Your task to perform on an android device: toggle wifi Image 0: 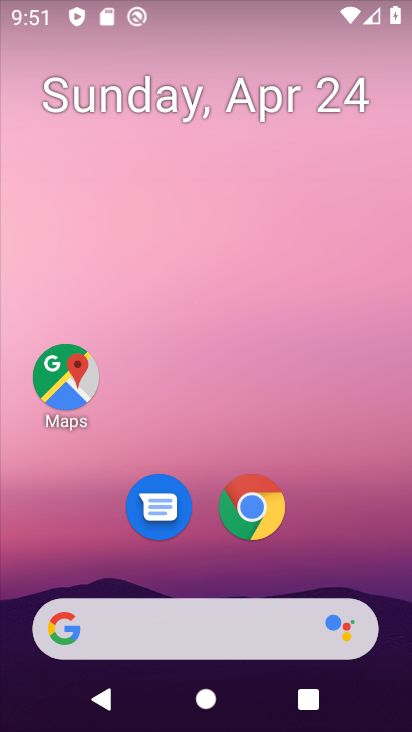
Step 0: drag from (166, 572) to (211, 68)
Your task to perform on an android device: toggle wifi Image 1: 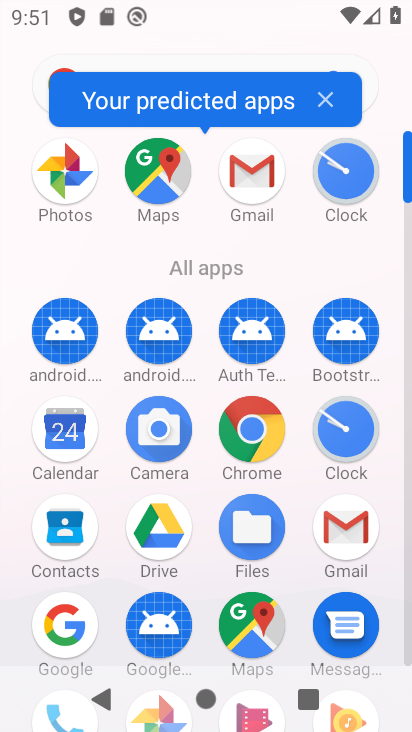
Step 1: drag from (298, 595) to (292, 242)
Your task to perform on an android device: toggle wifi Image 2: 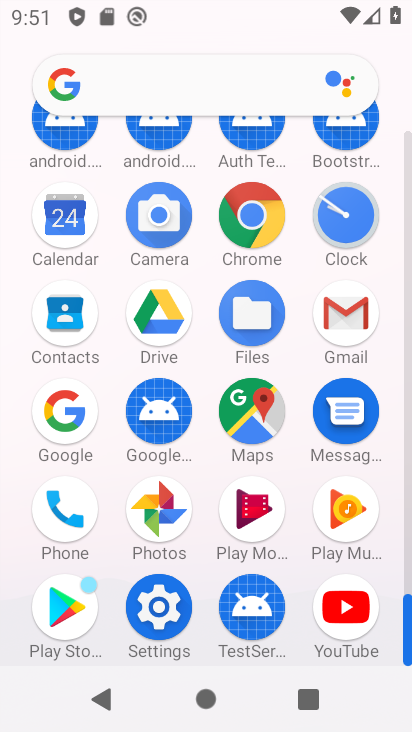
Step 2: click (153, 608)
Your task to perform on an android device: toggle wifi Image 3: 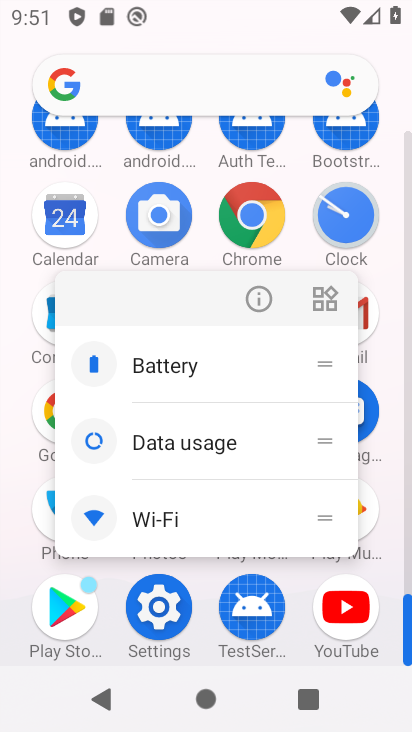
Step 3: click (270, 297)
Your task to perform on an android device: toggle wifi Image 4: 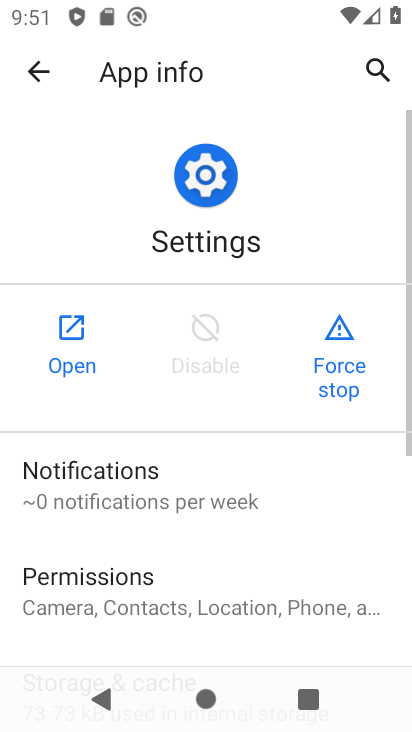
Step 4: click (65, 363)
Your task to perform on an android device: toggle wifi Image 5: 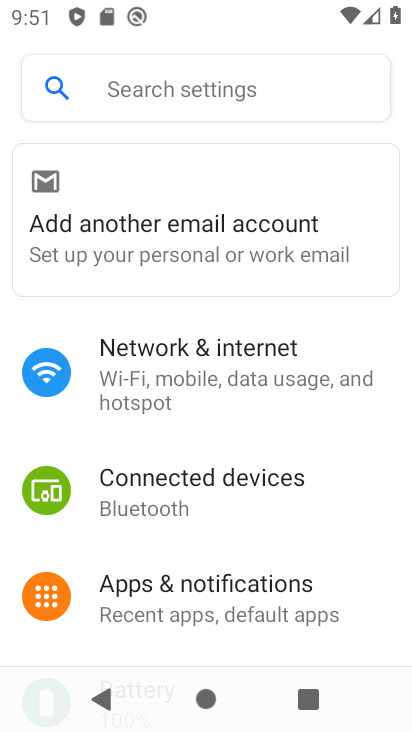
Step 5: click (189, 357)
Your task to perform on an android device: toggle wifi Image 6: 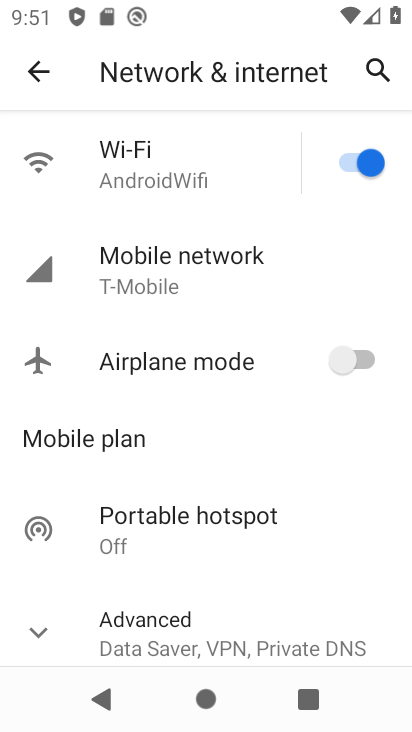
Step 6: click (347, 169)
Your task to perform on an android device: toggle wifi Image 7: 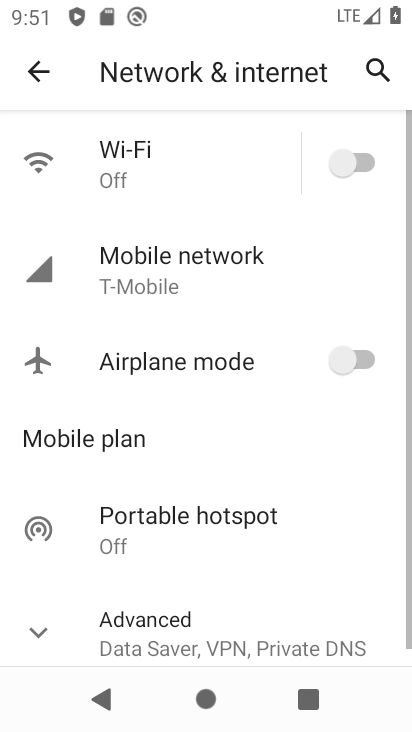
Step 7: task complete